Your task to perform on an android device: remove spam from my inbox in the gmail app Image 0: 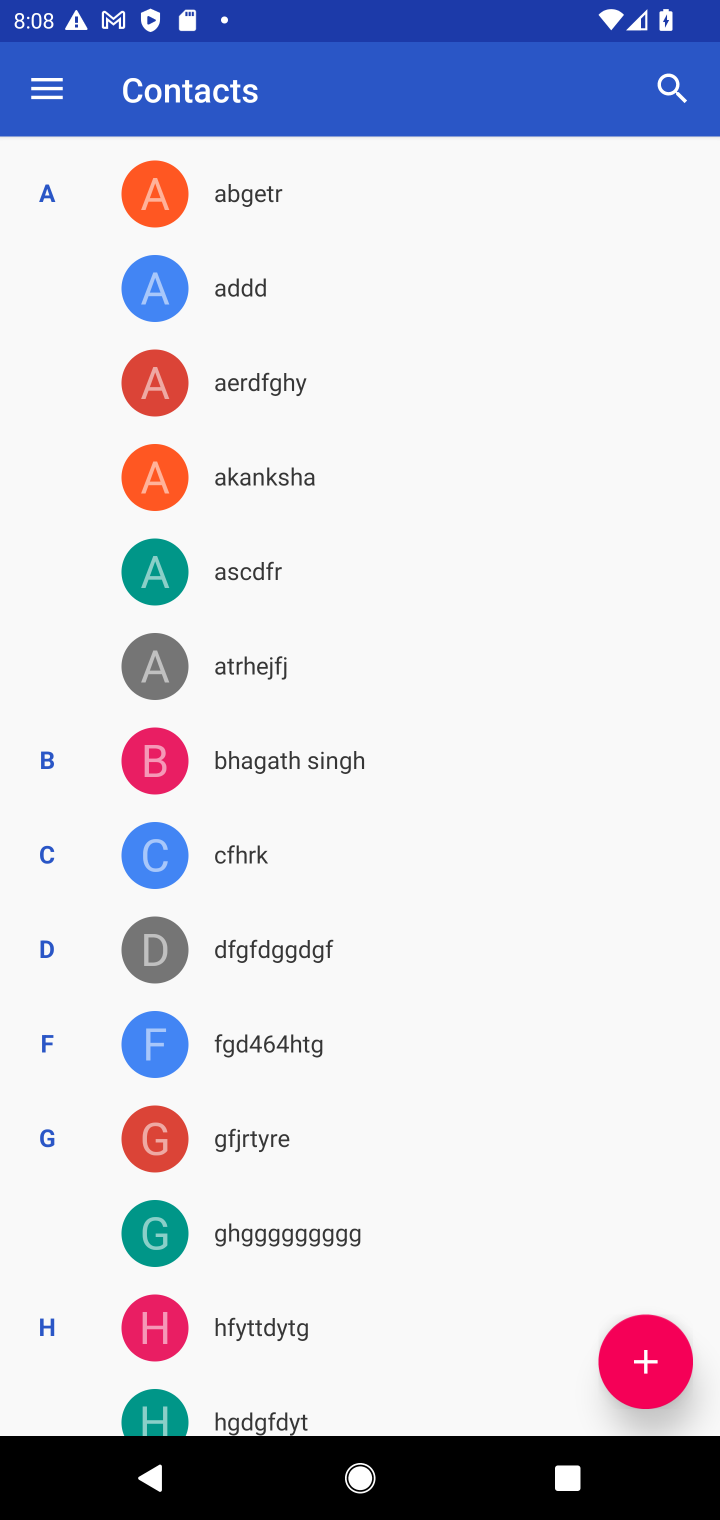
Step 0: press home button
Your task to perform on an android device: remove spam from my inbox in the gmail app Image 1: 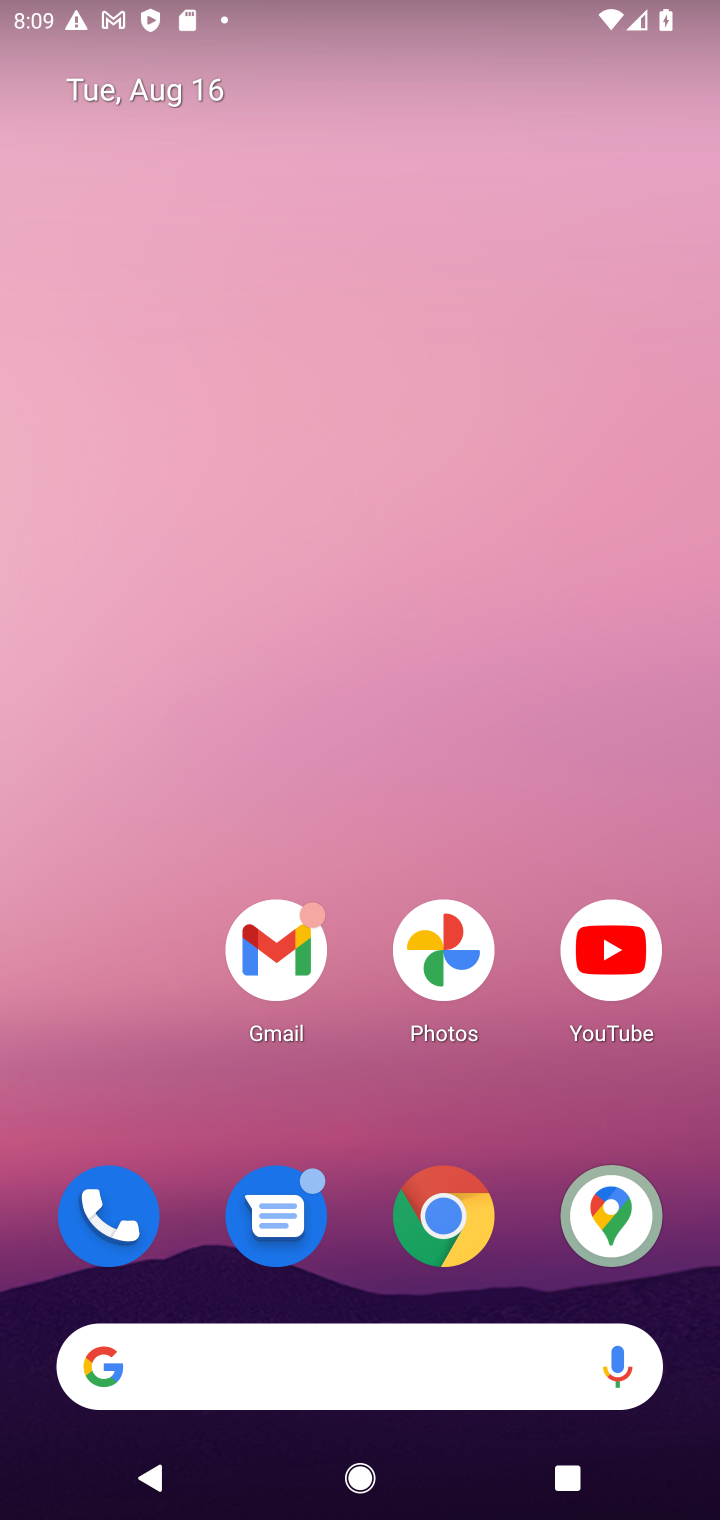
Step 1: drag from (378, 1307) to (340, 180)
Your task to perform on an android device: remove spam from my inbox in the gmail app Image 2: 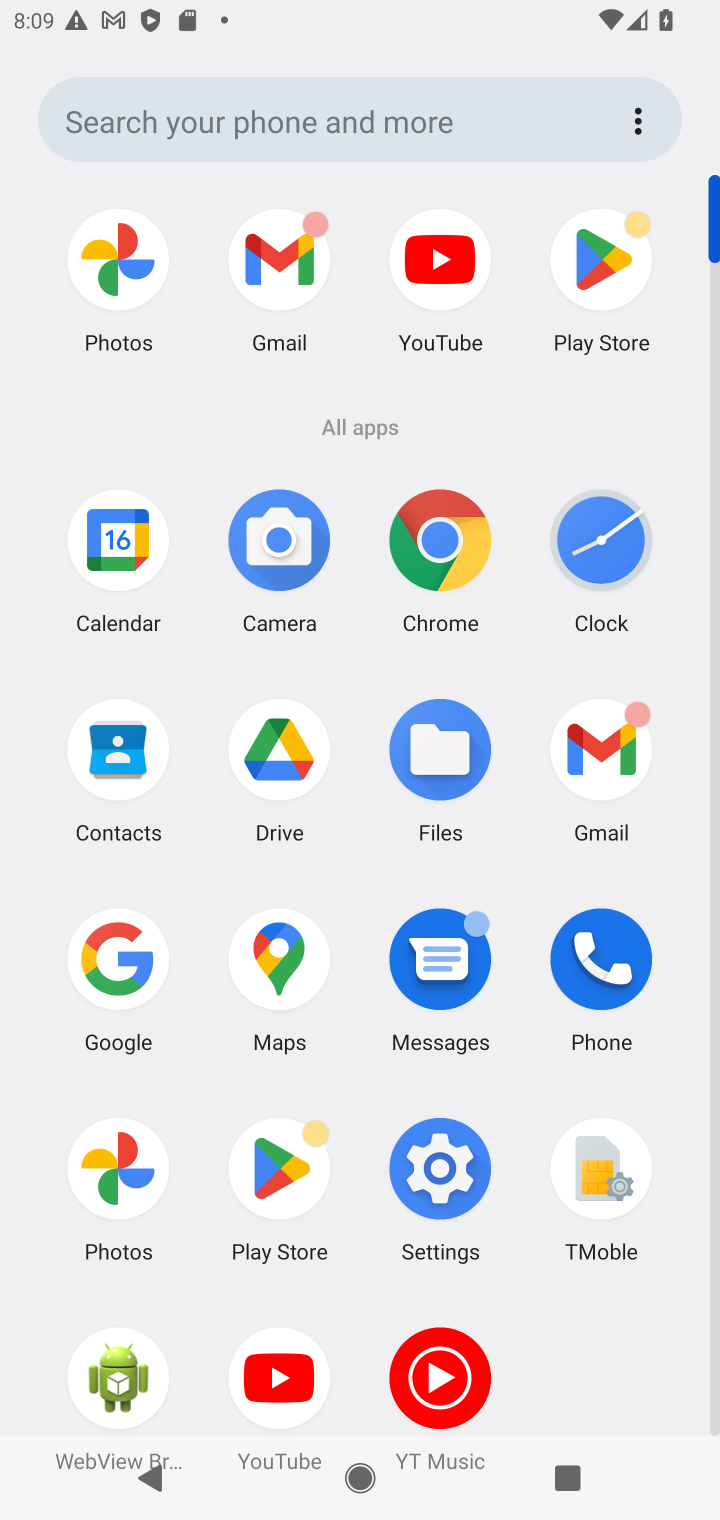
Step 2: click (596, 765)
Your task to perform on an android device: remove spam from my inbox in the gmail app Image 3: 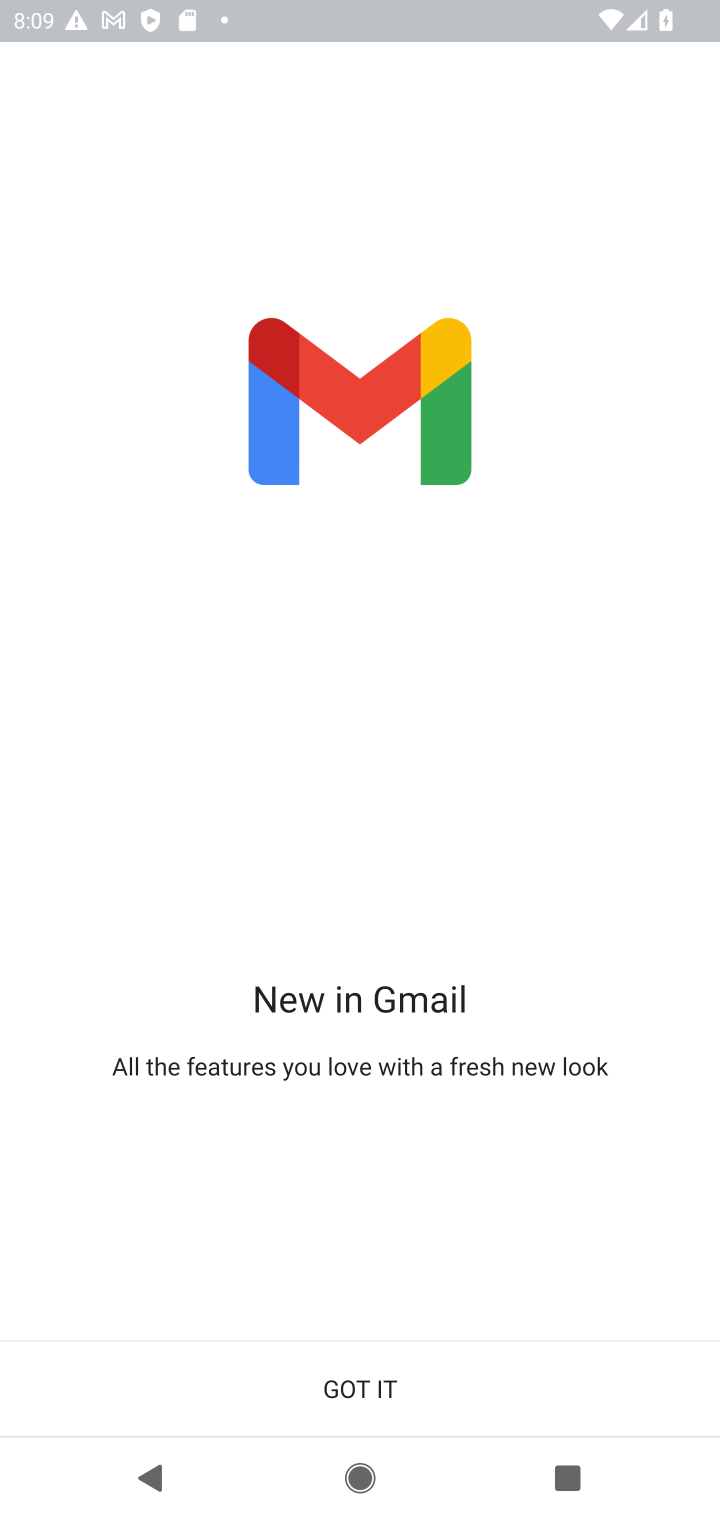
Step 3: click (435, 1356)
Your task to perform on an android device: remove spam from my inbox in the gmail app Image 4: 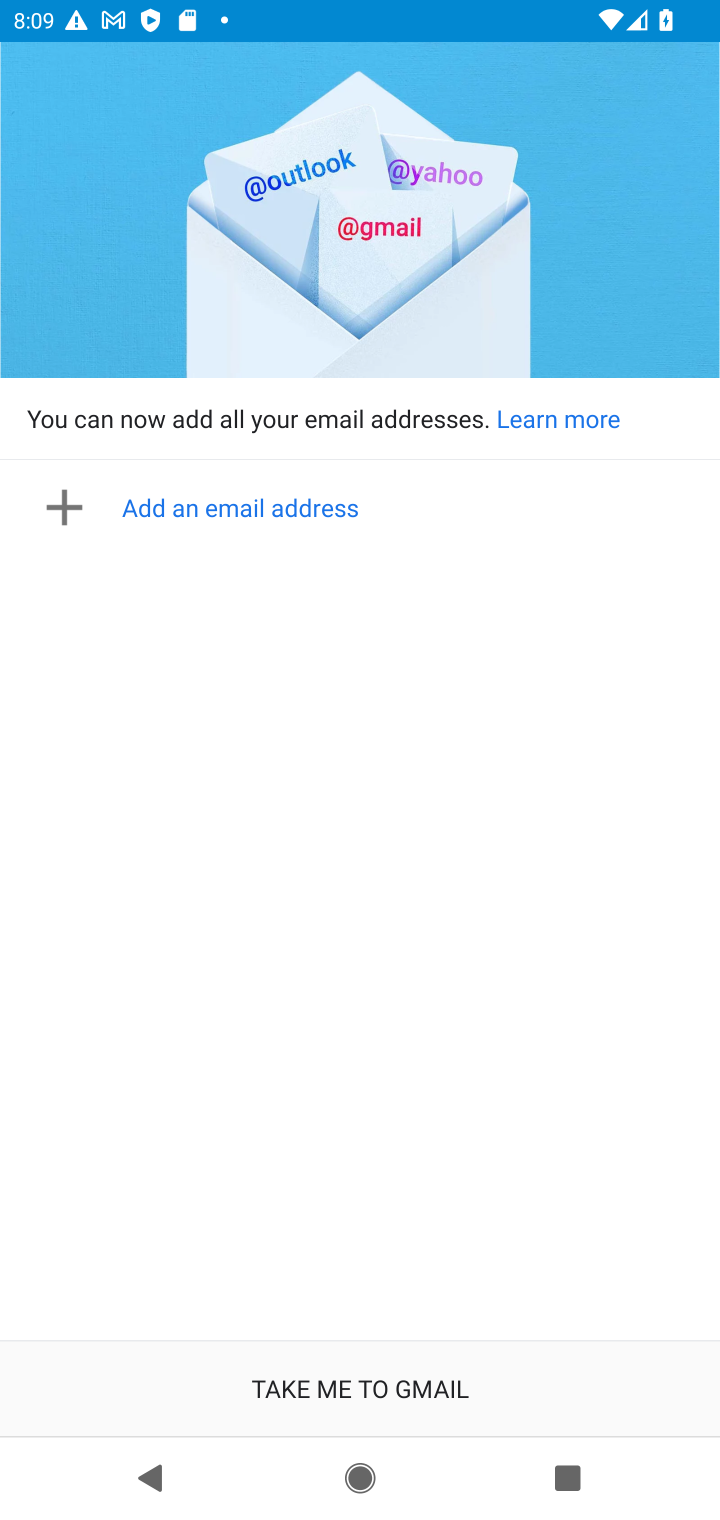
Step 4: click (430, 1382)
Your task to perform on an android device: remove spam from my inbox in the gmail app Image 5: 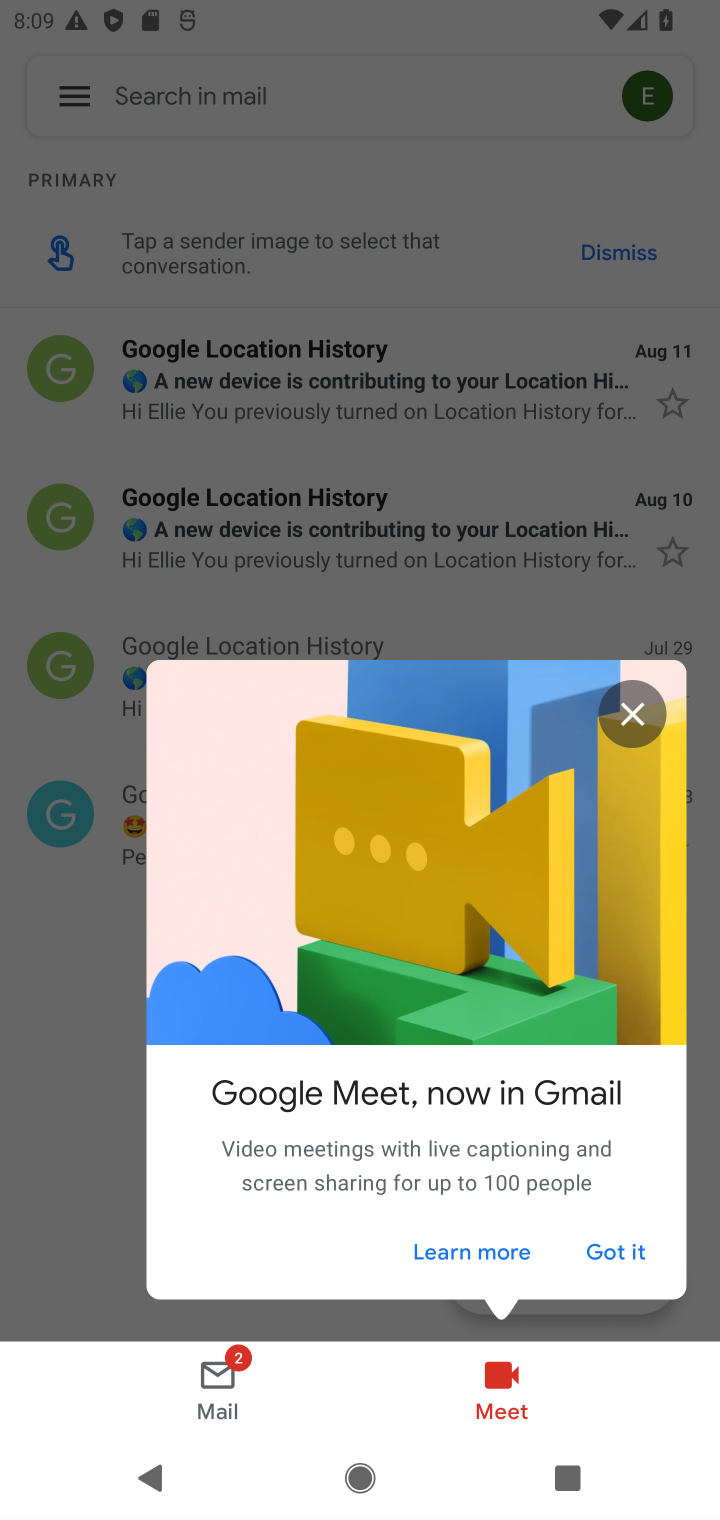
Step 5: click (617, 1248)
Your task to perform on an android device: remove spam from my inbox in the gmail app Image 6: 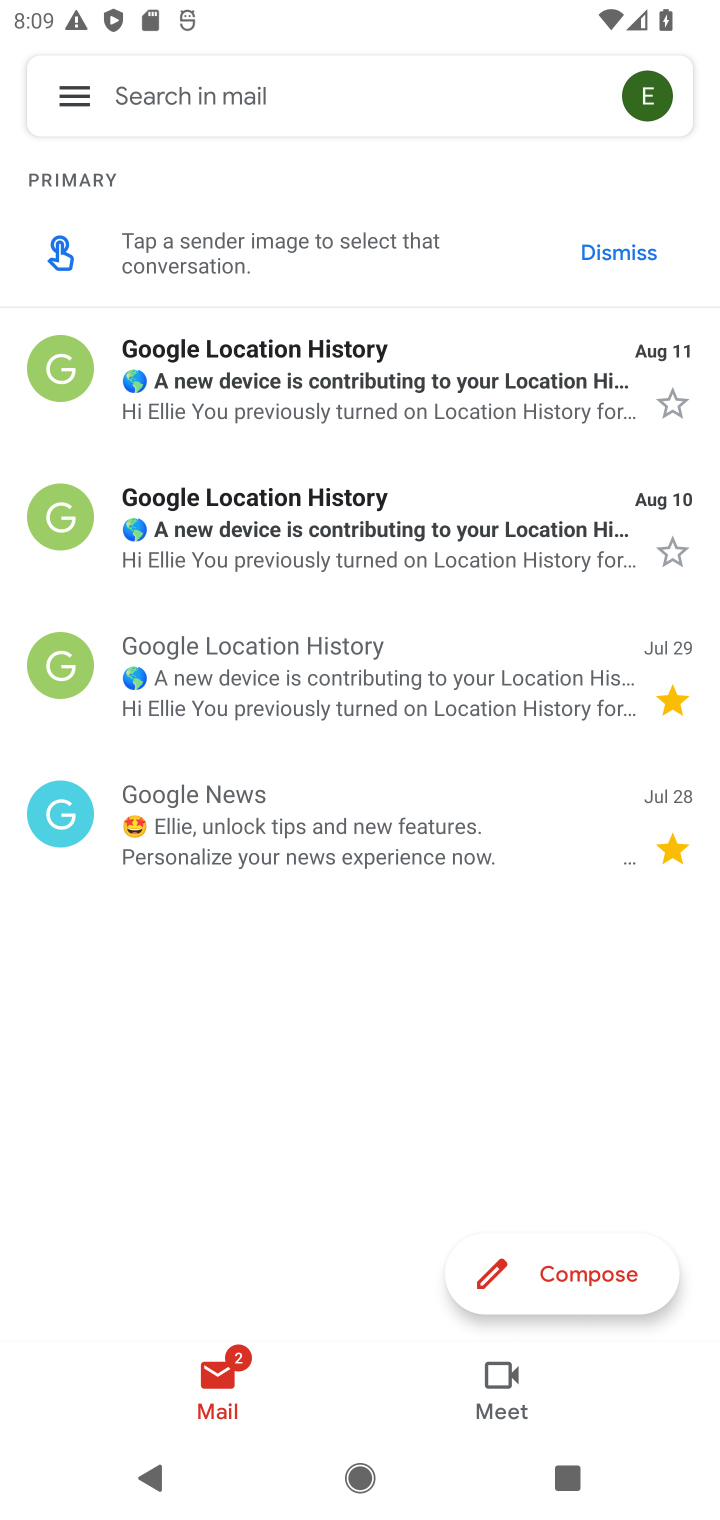
Step 6: click (73, 76)
Your task to perform on an android device: remove spam from my inbox in the gmail app Image 7: 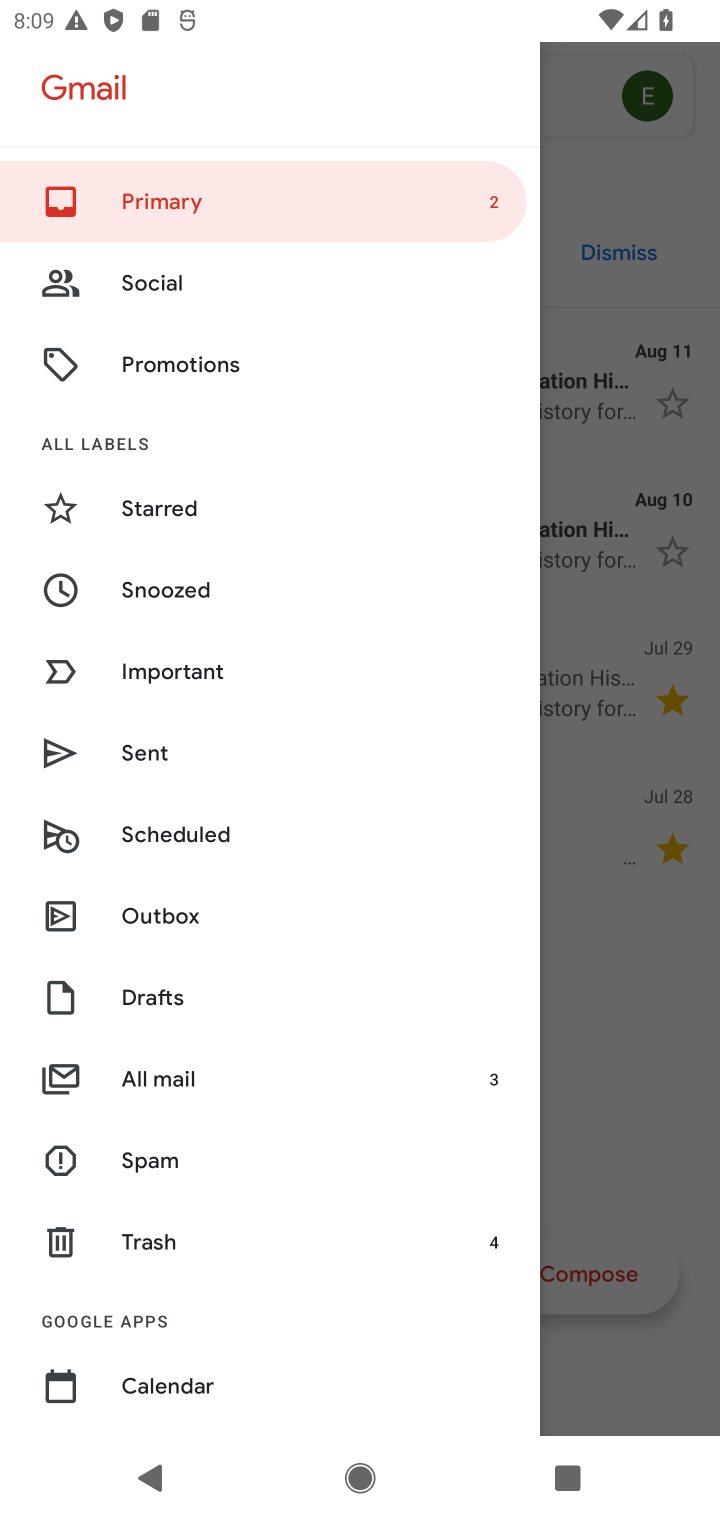
Step 7: click (147, 1135)
Your task to perform on an android device: remove spam from my inbox in the gmail app Image 8: 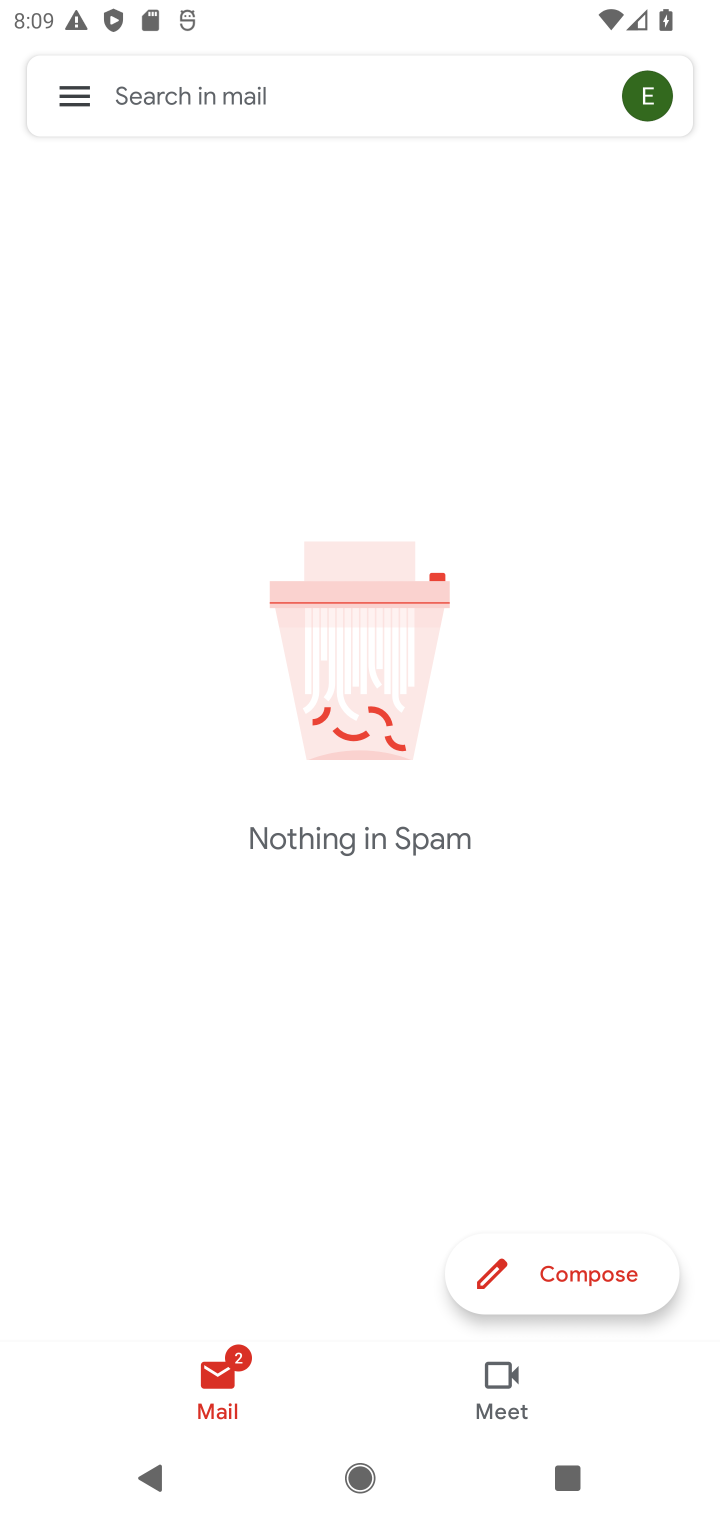
Step 8: task complete